Your task to perform on an android device: open device folders in google photos Image 0: 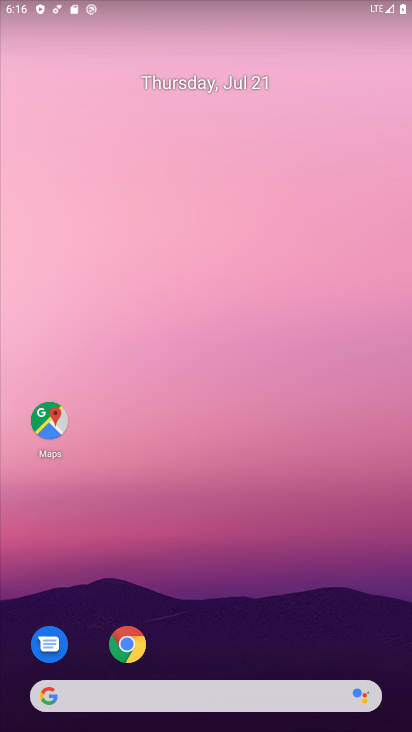
Step 0: drag from (193, 588) to (226, 145)
Your task to perform on an android device: open device folders in google photos Image 1: 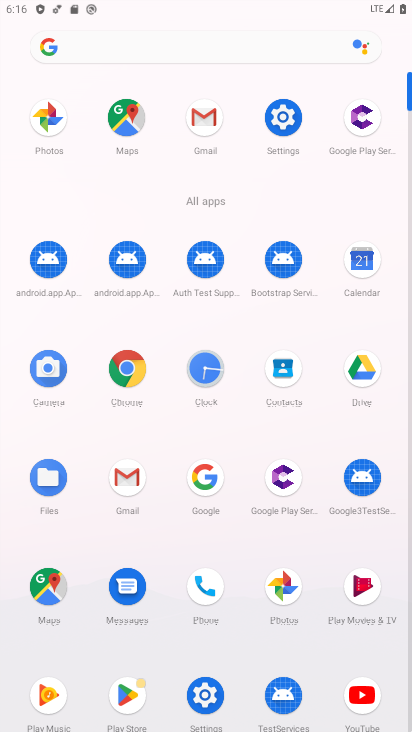
Step 1: click (45, 124)
Your task to perform on an android device: open device folders in google photos Image 2: 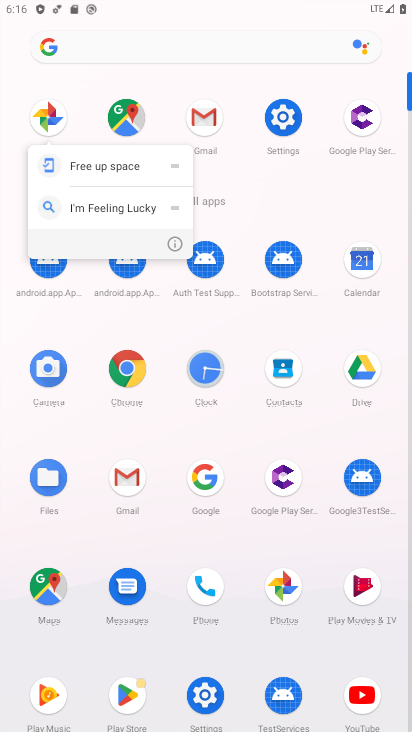
Step 2: click (47, 122)
Your task to perform on an android device: open device folders in google photos Image 3: 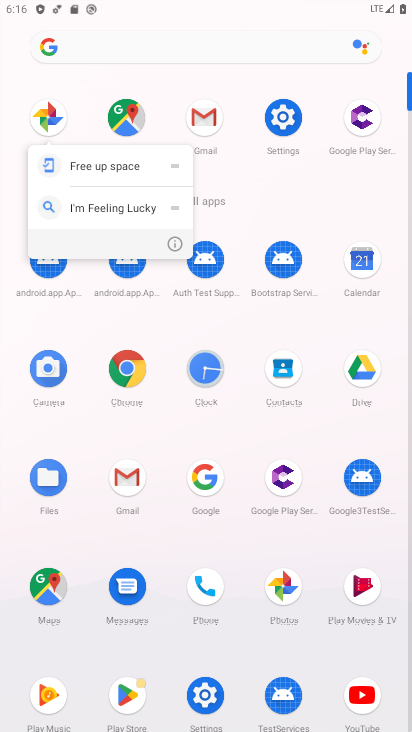
Step 3: click (47, 122)
Your task to perform on an android device: open device folders in google photos Image 4: 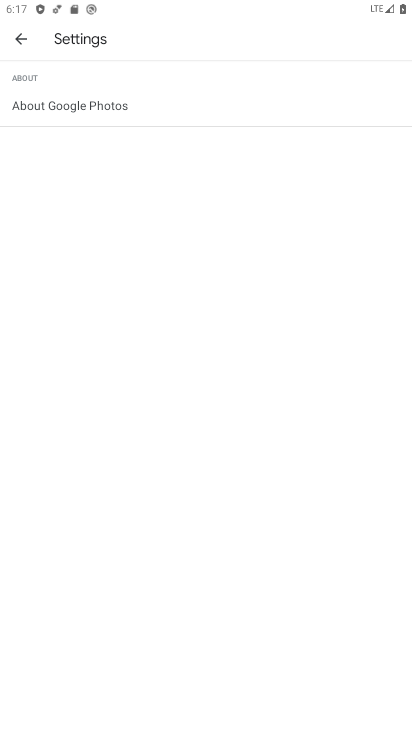
Step 4: click (29, 33)
Your task to perform on an android device: open device folders in google photos Image 5: 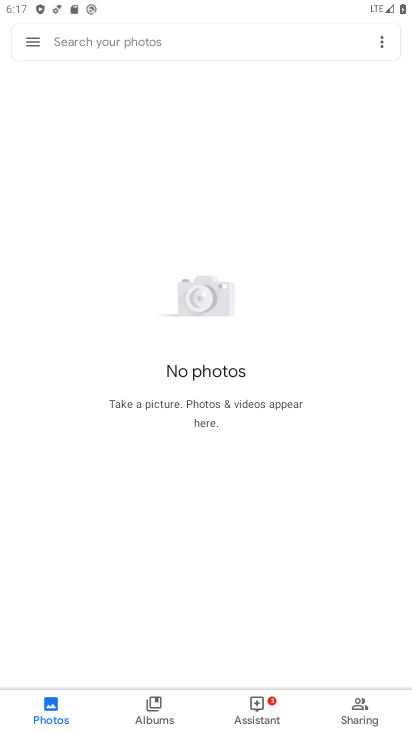
Step 5: click (27, 38)
Your task to perform on an android device: open device folders in google photos Image 6: 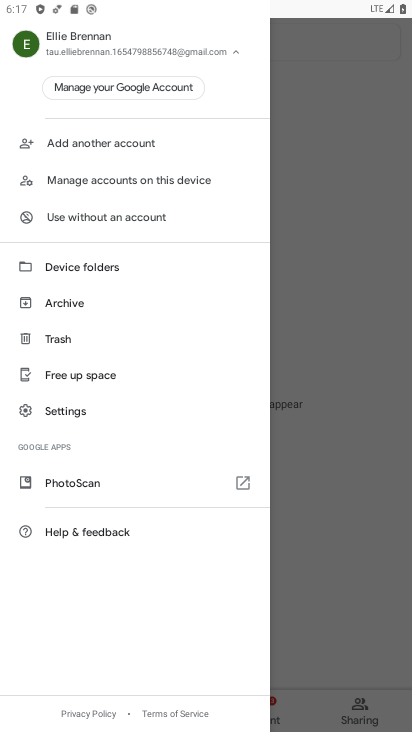
Step 6: click (103, 263)
Your task to perform on an android device: open device folders in google photos Image 7: 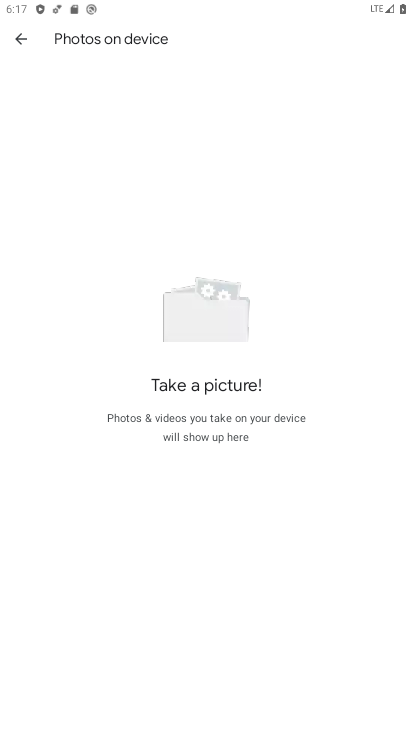
Step 7: task complete